Your task to perform on an android device: turn pop-ups on in chrome Image 0: 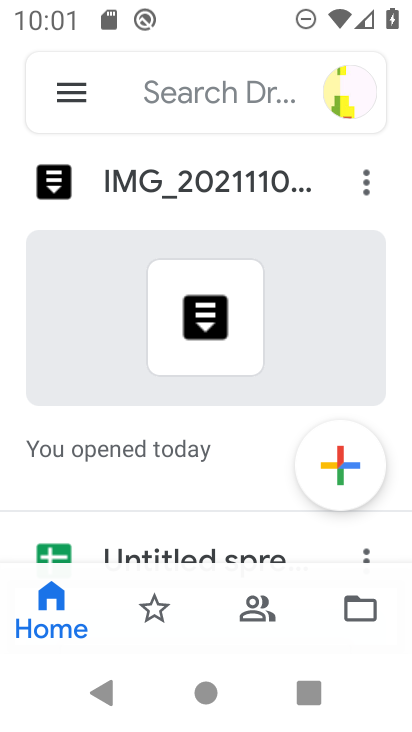
Step 0: press home button
Your task to perform on an android device: turn pop-ups on in chrome Image 1: 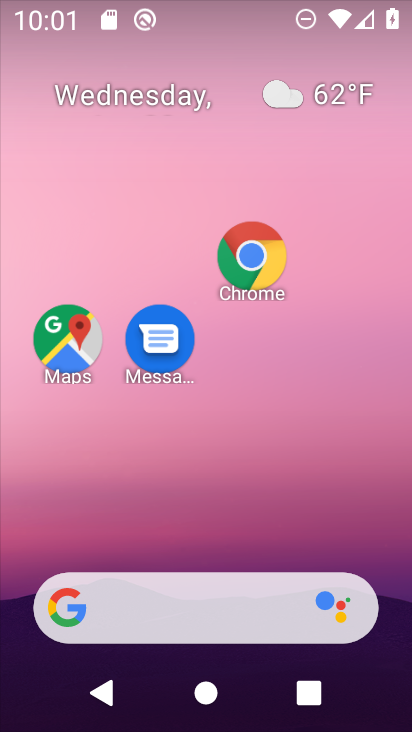
Step 1: click (257, 258)
Your task to perform on an android device: turn pop-ups on in chrome Image 2: 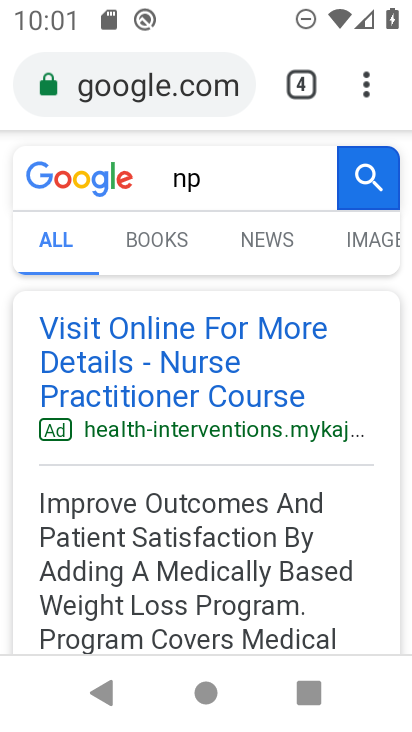
Step 2: click (367, 88)
Your task to perform on an android device: turn pop-ups on in chrome Image 3: 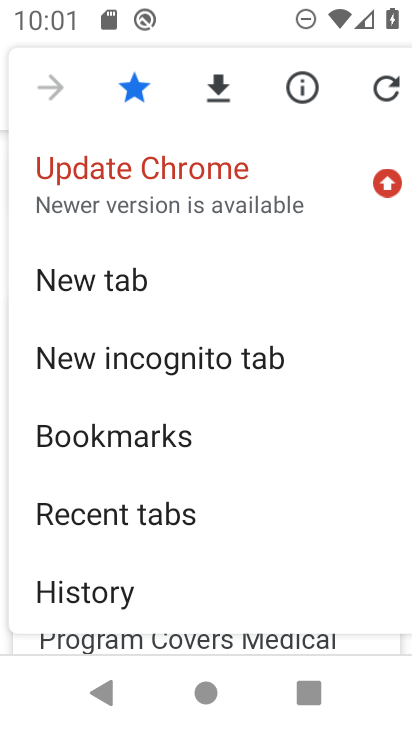
Step 3: drag from (219, 530) to (141, 200)
Your task to perform on an android device: turn pop-ups on in chrome Image 4: 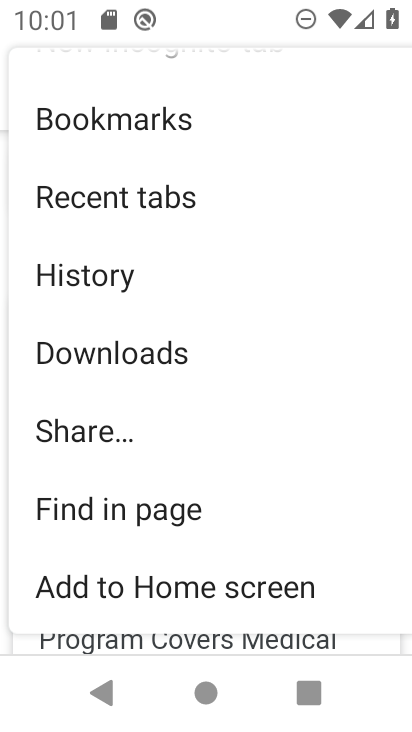
Step 4: drag from (252, 486) to (219, 108)
Your task to perform on an android device: turn pop-ups on in chrome Image 5: 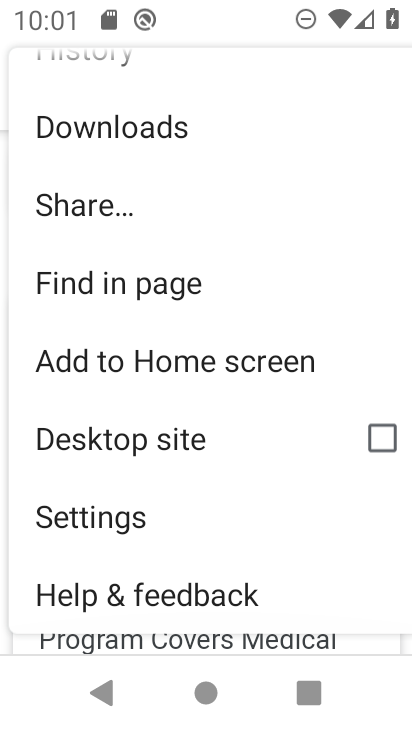
Step 5: click (118, 524)
Your task to perform on an android device: turn pop-ups on in chrome Image 6: 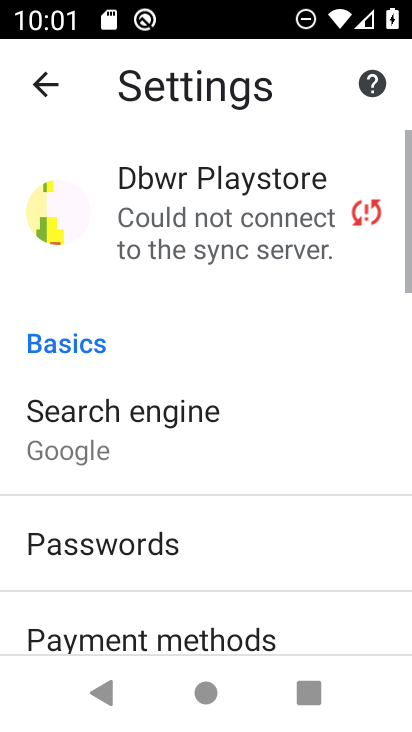
Step 6: drag from (276, 563) to (257, 122)
Your task to perform on an android device: turn pop-ups on in chrome Image 7: 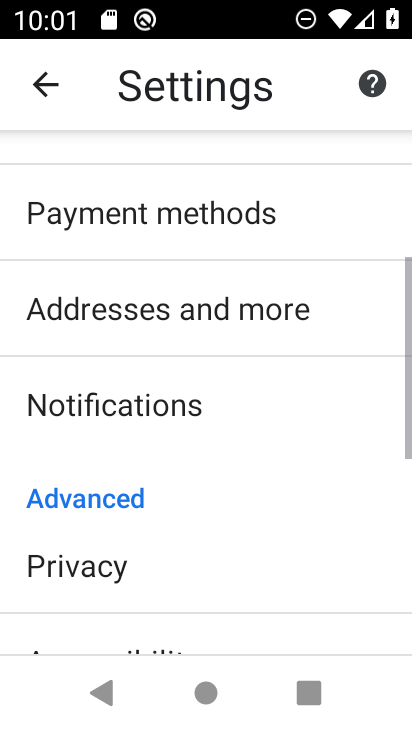
Step 7: drag from (195, 604) to (161, 260)
Your task to perform on an android device: turn pop-ups on in chrome Image 8: 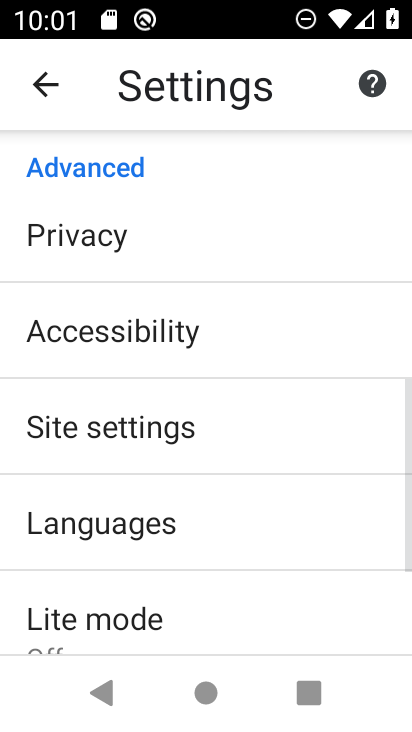
Step 8: click (118, 441)
Your task to perform on an android device: turn pop-ups on in chrome Image 9: 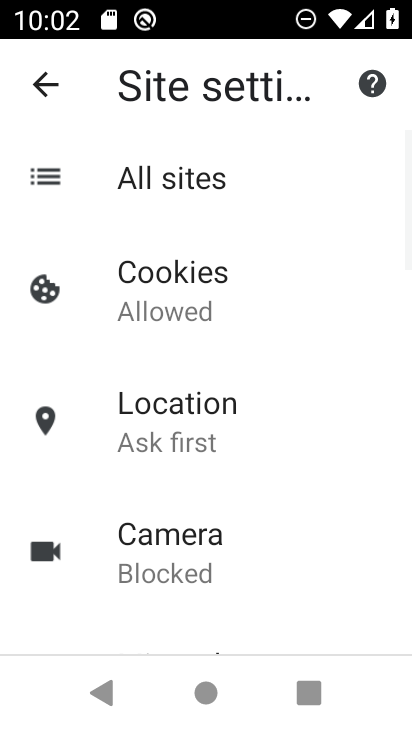
Step 9: drag from (230, 433) to (192, 130)
Your task to perform on an android device: turn pop-ups on in chrome Image 10: 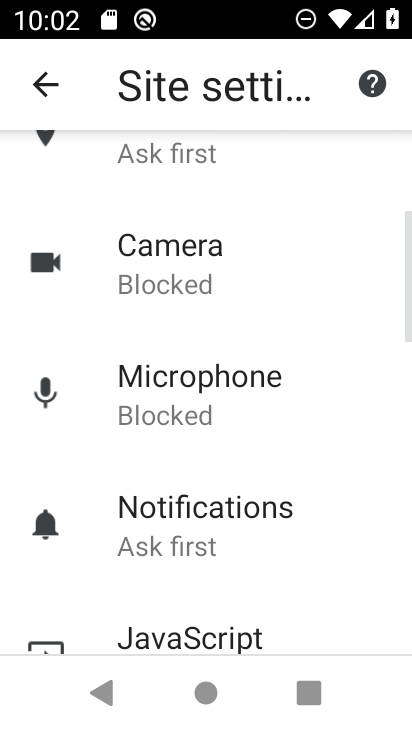
Step 10: drag from (237, 581) to (175, 246)
Your task to perform on an android device: turn pop-ups on in chrome Image 11: 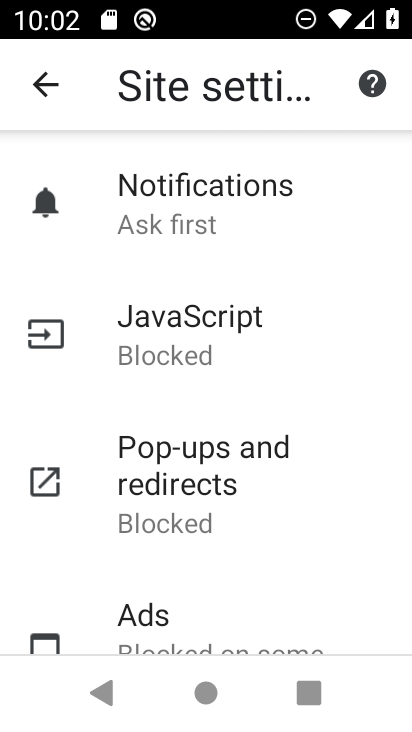
Step 11: click (165, 493)
Your task to perform on an android device: turn pop-ups on in chrome Image 12: 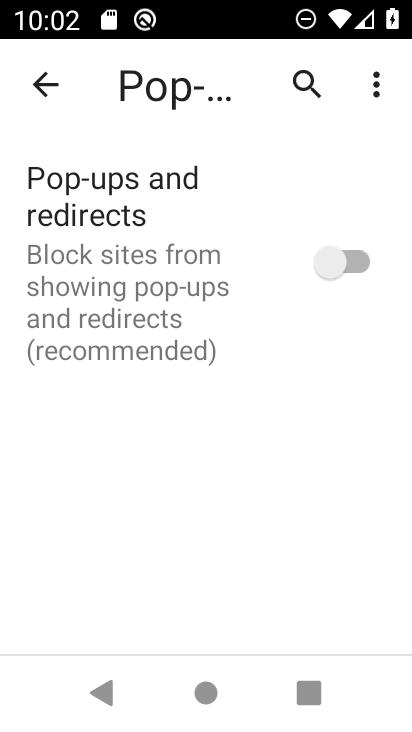
Step 12: click (343, 266)
Your task to perform on an android device: turn pop-ups on in chrome Image 13: 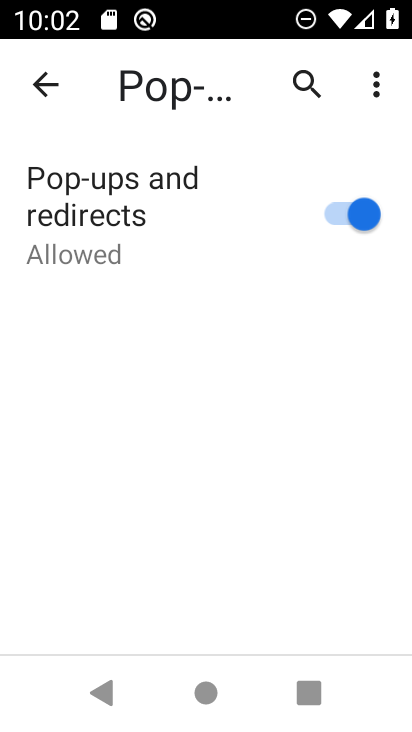
Step 13: task complete